Your task to perform on an android device: choose inbox layout in the gmail app Image 0: 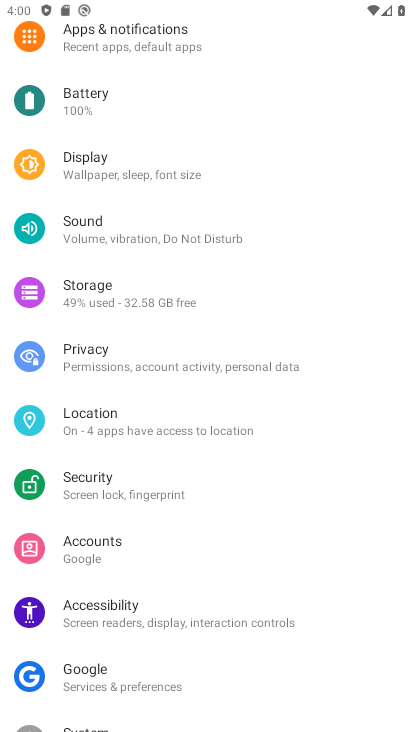
Step 0: press back button
Your task to perform on an android device: choose inbox layout in the gmail app Image 1: 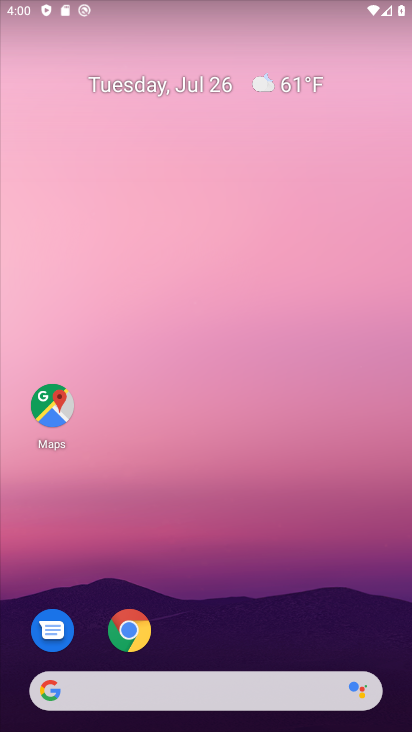
Step 1: drag from (273, 660) to (225, 131)
Your task to perform on an android device: choose inbox layout in the gmail app Image 2: 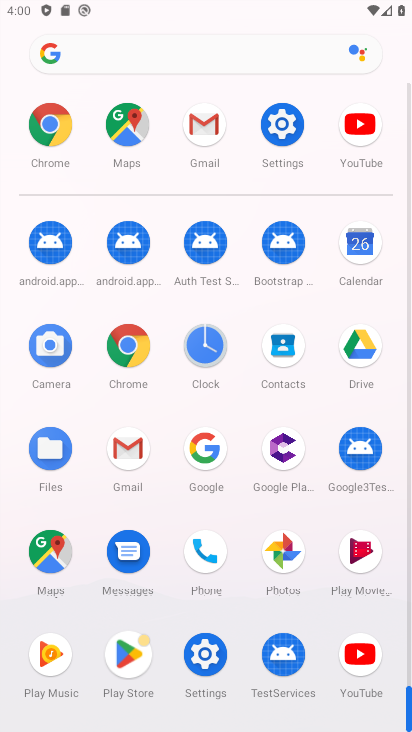
Step 2: click (123, 458)
Your task to perform on an android device: choose inbox layout in the gmail app Image 3: 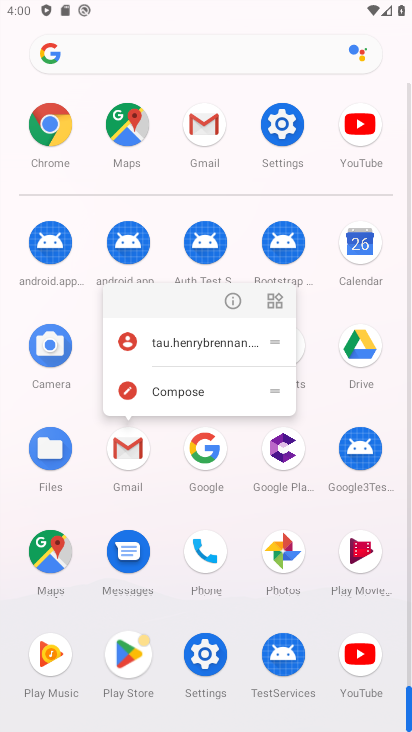
Step 3: click (125, 446)
Your task to perform on an android device: choose inbox layout in the gmail app Image 4: 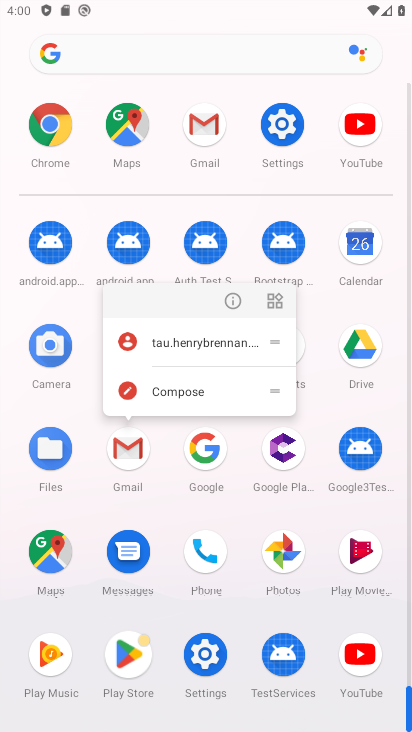
Step 4: click (125, 446)
Your task to perform on an android device: choose inbox layout in the gmail app Image 5: 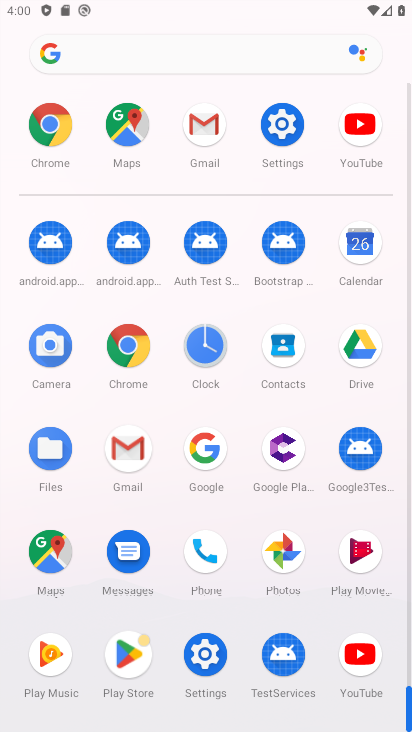
Step 5: click (125, 446)
Your task to perform on an android device: choose inbox layout in the gmail app Image 6: 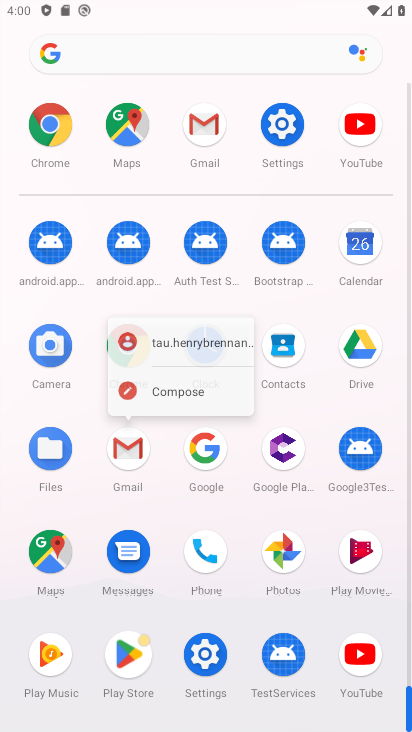
Step 6: click (125, 446)
Your task to perform on an android device: choose inbox layout in the gmail app Image 7: 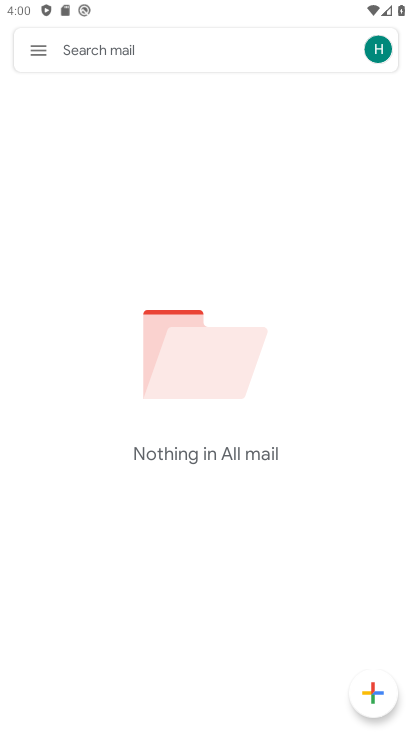
Step 7: click (37, 46)
Your task to perform on an android device: choose inbox layout in the gmail app Image 8: 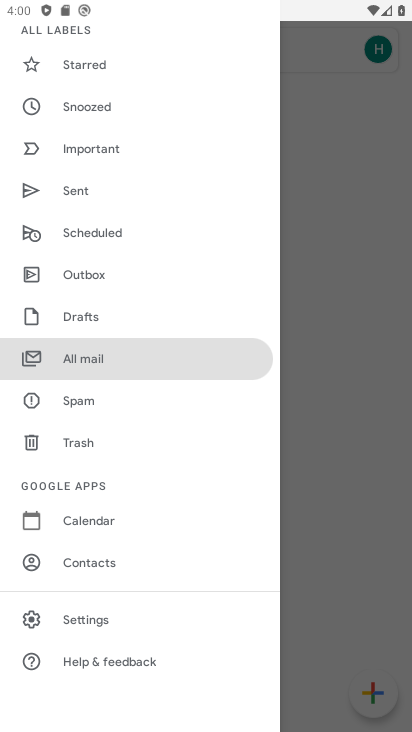
Step 8: task complete